Your task to perform on an android device: turn on priority inbox in the gmail app Image 0: 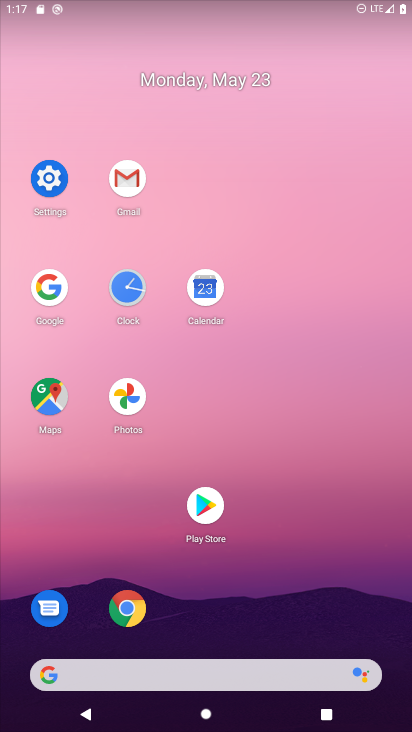
Step 0: click (124, 182)
Your task to perform on an android device: turn on priority inbox in the gmail app Image 1: 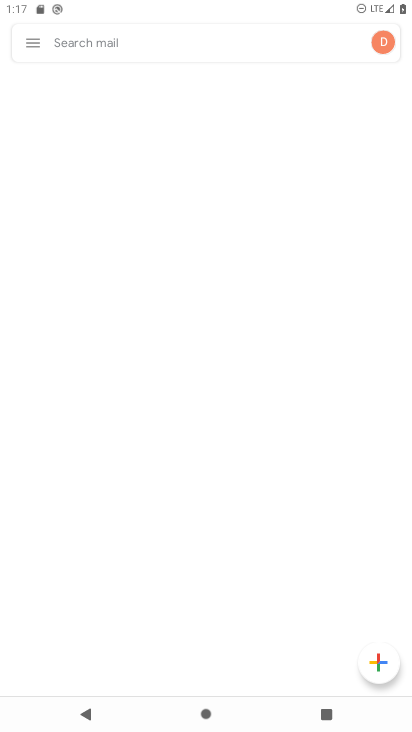
Step 1: click (36, 57)
Your task to perform on an android device: turn on priority inbox in the gmail app Image 2: 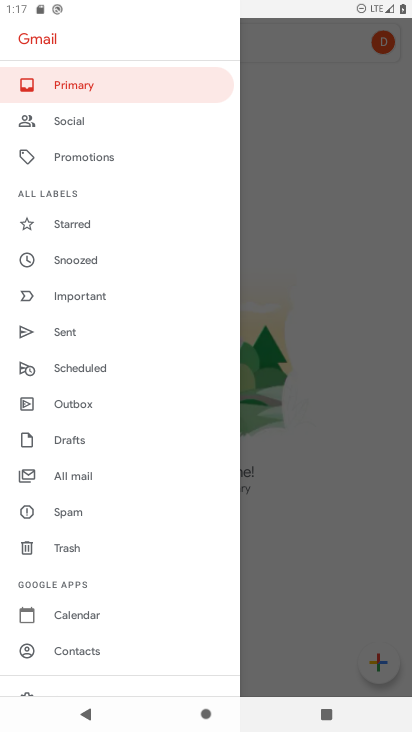
Step 2: drag from (107, 605) to (100, 264)
Your task to perform on an android device: turn on priority inbox in the gmail app Image 3: 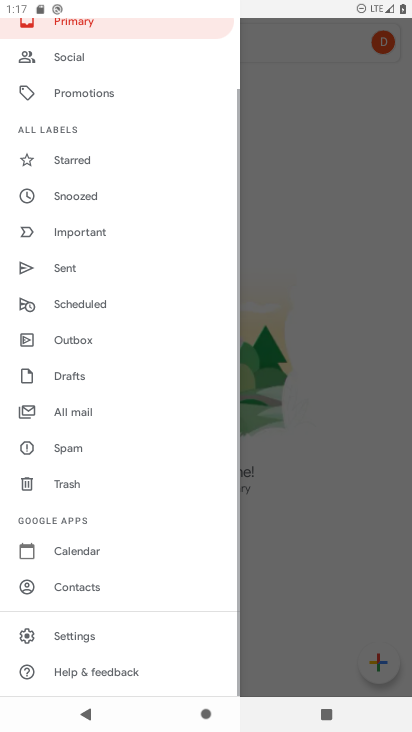
Step 3: click (88, 639)
Your task to perform on an android device: turn on priority inbox in the gmail app Image 4: 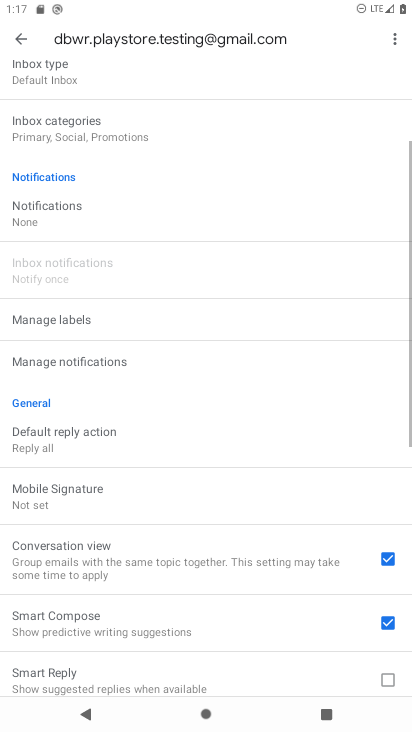
Step 4: drag from (178, 651) to (204, 312)
Your task to perform on an android device: turn on priority inbox in the gmail app Image 5: 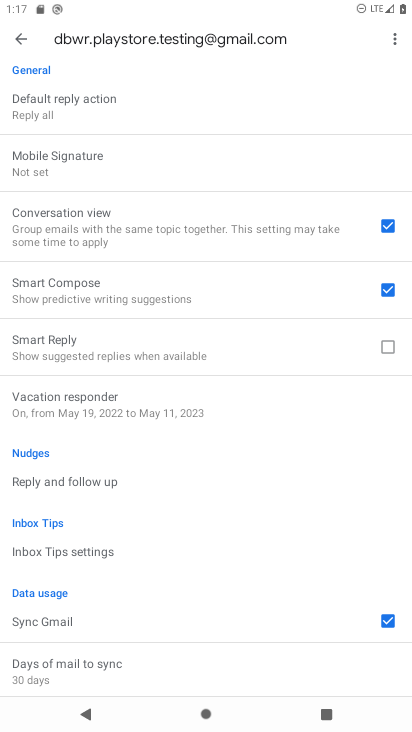
Step 5: drag from (151, 180) to (171, 540)
Your task to perform on an android device: turn on priority inbox in the gmail app Image 6: 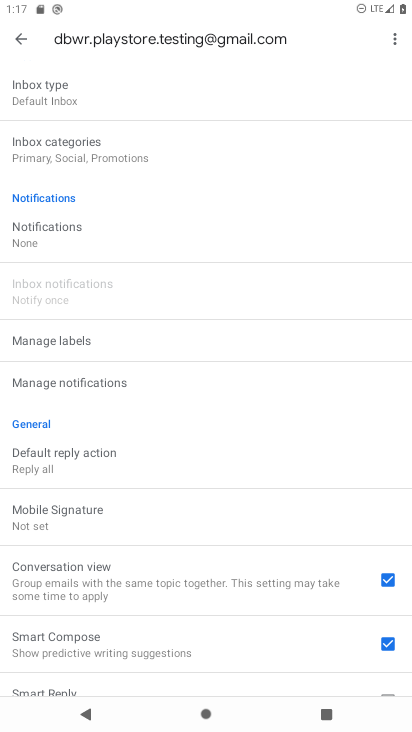
Step 6: click (124, 94)
Your task to perform on an android device: turn on priority inbox in the gmail app Image 7: 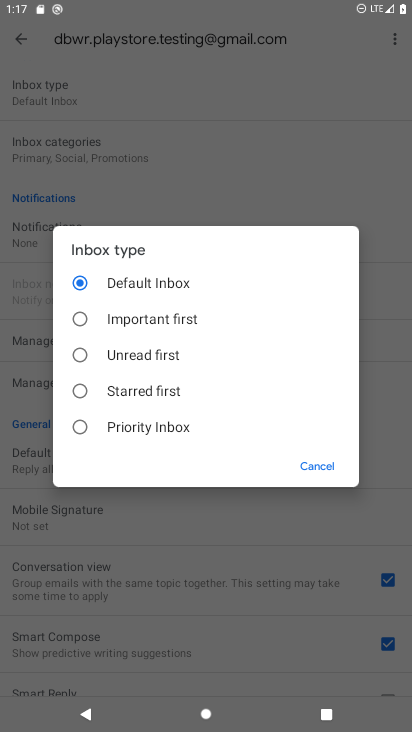
Step 7: click (124, 423)
Your task to perform on an android device: turn on priority inbox in the gmail app Image 8: 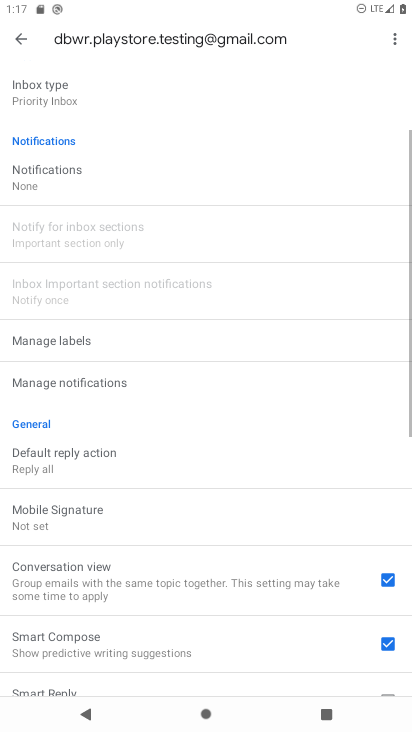
Step 8: task complete